Your task to perform on an android device: change timer sound Image 0: 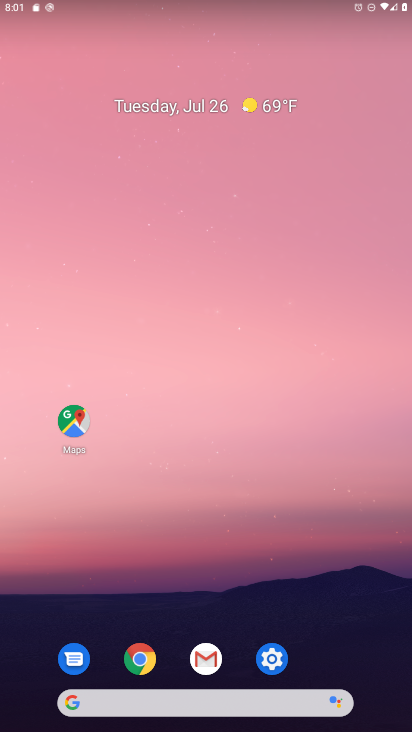
Step 0: drag from (247, 699) to (324, 110)
Your task to perform on an android device: change timer sound Image 1: 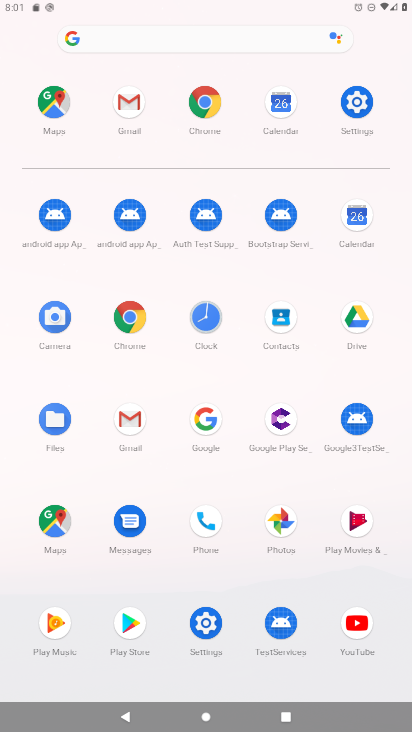
Step 1: click (195, 304)
Your task to perform on an android device: change timer sound Image 2: 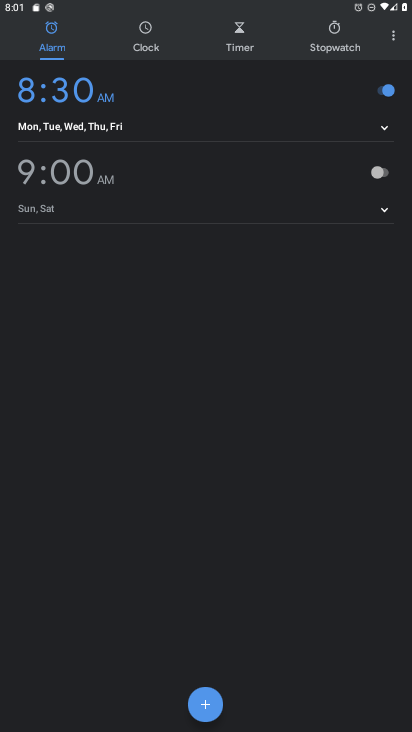
Step 2: click (392, 40)
Your task to perform on an android device: change timer sound Image 3: 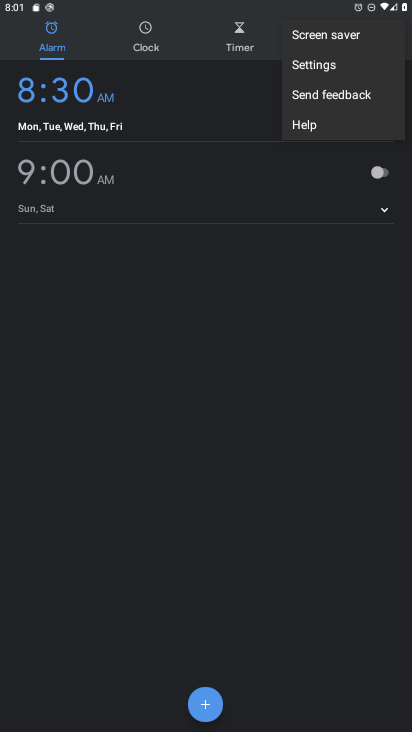
Step 3: click (316, 65)
Your task to perform on an android device: change timer sound Image 4: 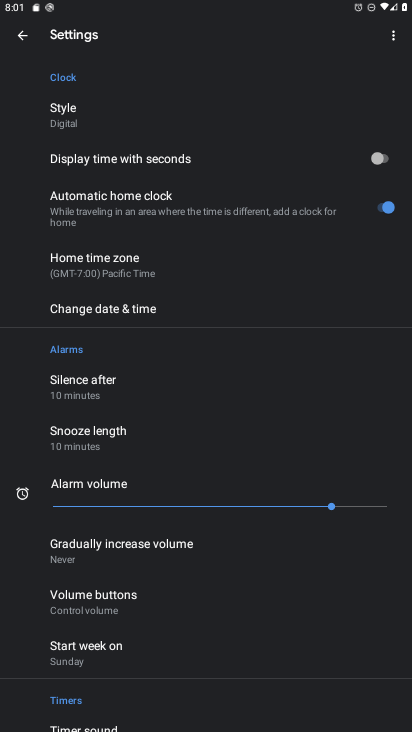
Step 4: drag from (148, 589) to (230, 436)
Your task to perform on an android device: change timer sound Image 5: 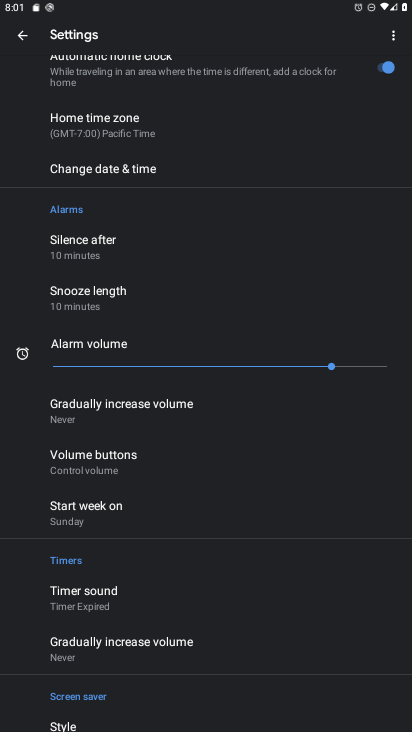
Step 5: click (129, 587)
Your task to perform on an android device: change timer sound Image 6: 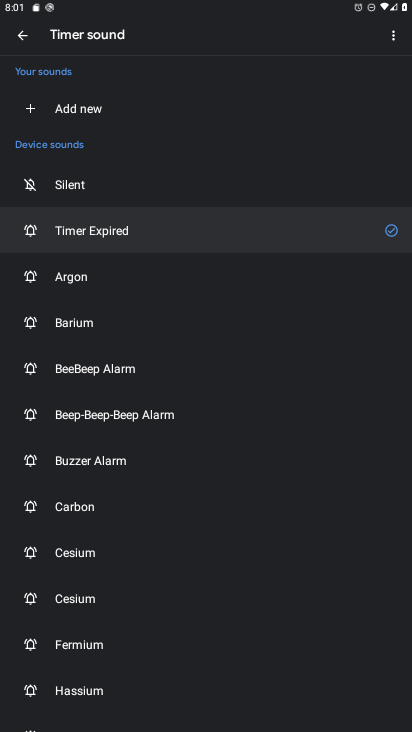
Step 6: click (79, 324)
Your task to perform on an android device: change timer sound Image 7: 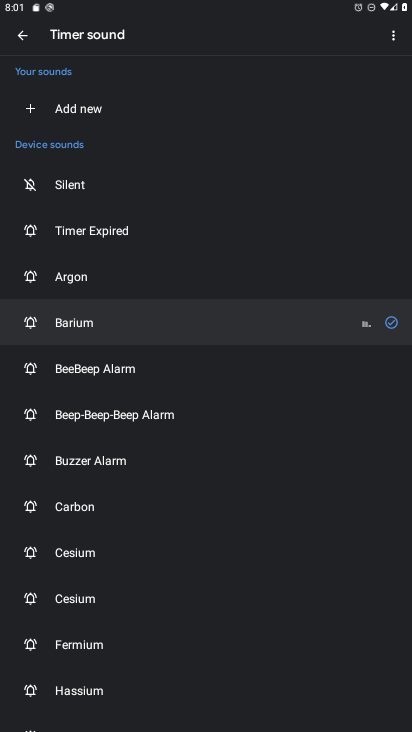
Step 7: task complete